Your task to perform on an android device: check out phone information Image 0: 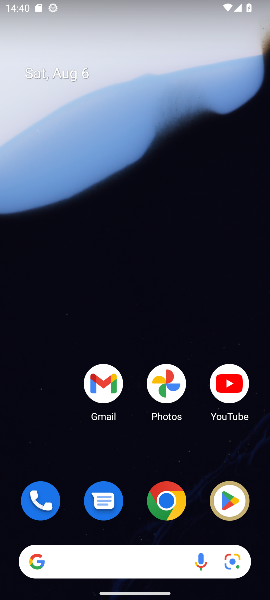
Step 0: press home button
Your task to perform on an android device: check out phone information Image 1: 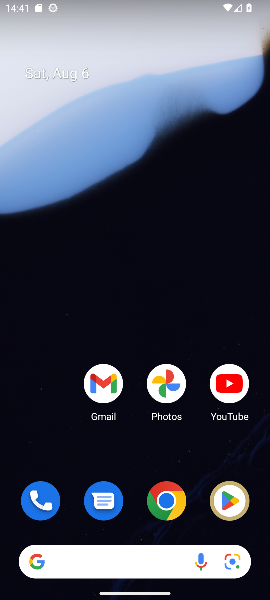
Step 1: drag from (130, 518) to (260, 60)
Your task to perform on an android device: check out phone information Image 2: 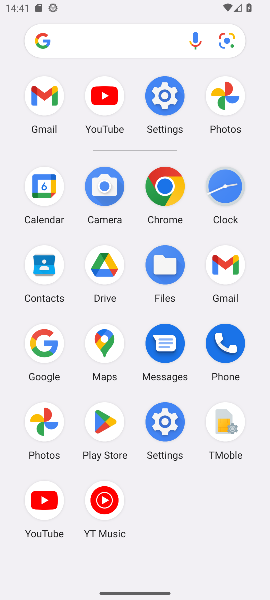
Step 2: click (165, 94)
Your task to perform on an android device: check out phone information Image 3: 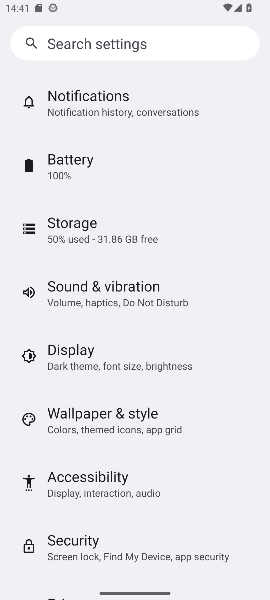
Step 3: drag from (168, 571) to (167, 2)
Your task to perform on an android device: check out phone information Image 4: 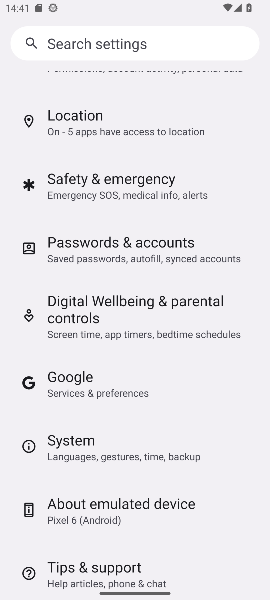
Step 4: drag from (173, 411) to (170, 33)
Your task to perform on an android device: check out phone information Image 5: 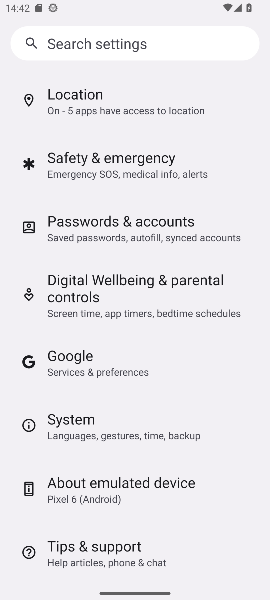
Step 5: click (102, 486)
Your task to perform on an android device: check out phone information Image 6: 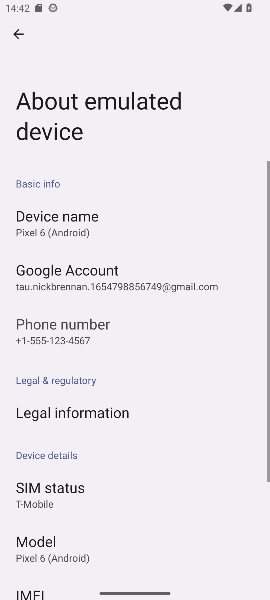
Step 6: task complete